Your task to perform on an android device: Do I have any events this weekend? Image 0: 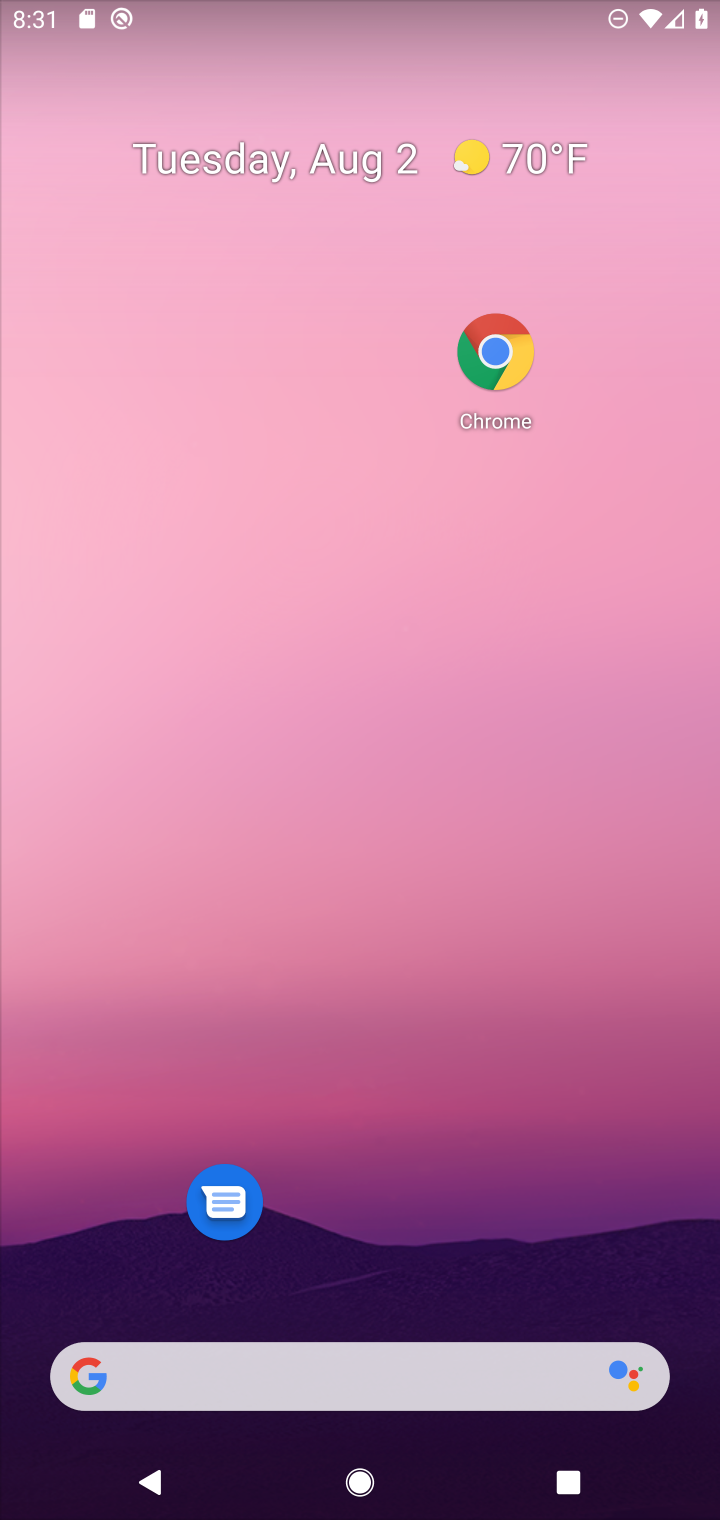
Step 0: drag from (387, 1091) to (342, 75)
Your task to perform on an android device: Do I have any events this weekend? Image 1: 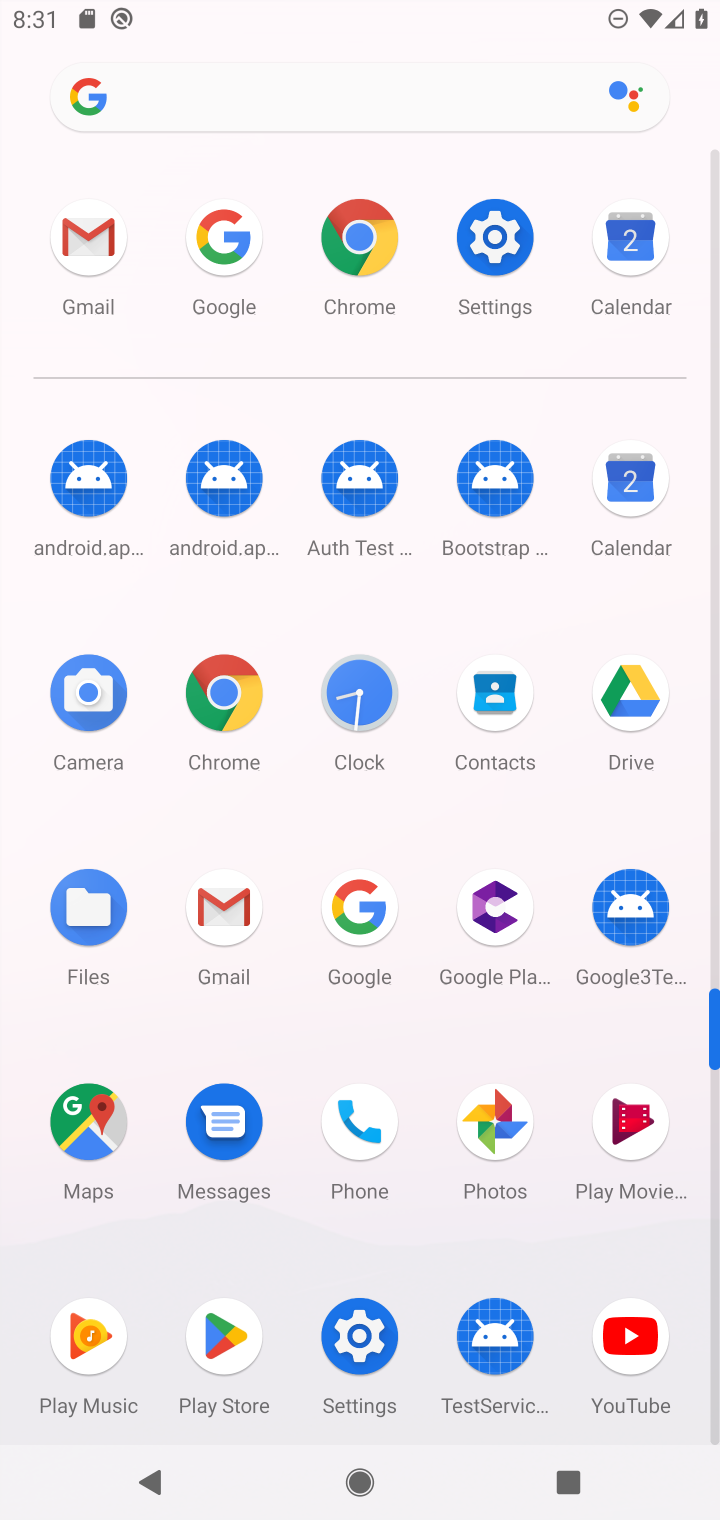
Step 1: click (617, 254)
Your task to perform on an android device: Do I have any events this weekend? Image 2: 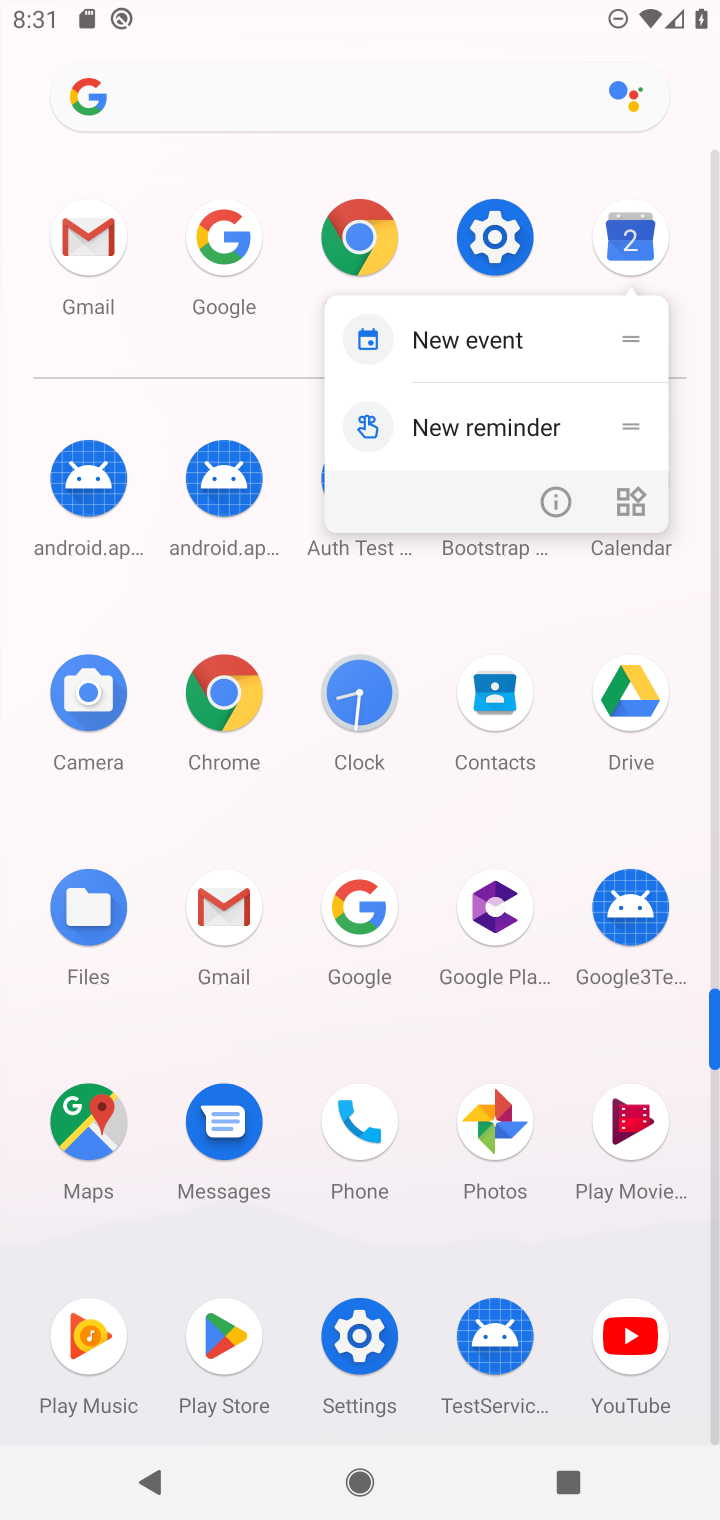
Step 2: click (631, 227)
Your task to perform on an android device: Do I have any events this weekend? Image 3: 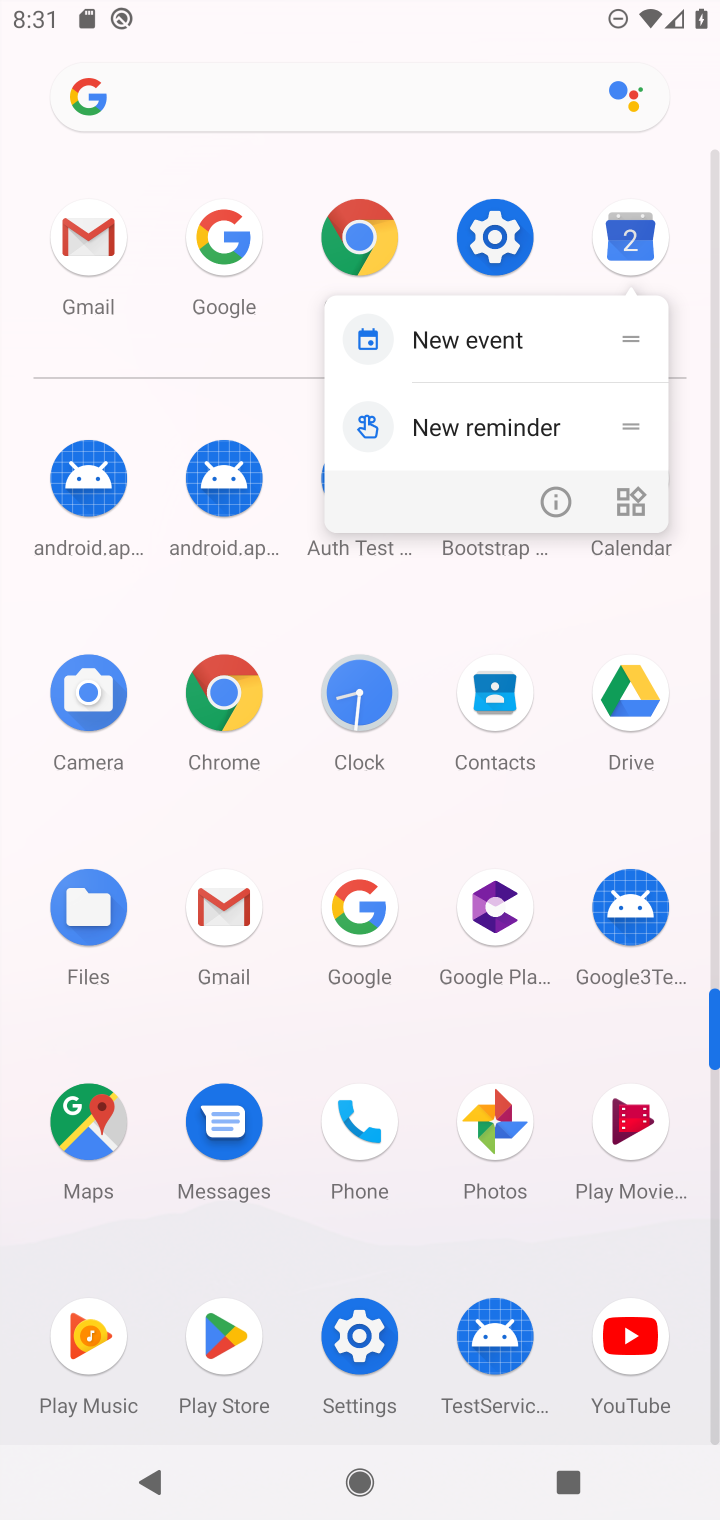
Step 3: click (616, 249)
Your task to perform on an android device: Do I have any events this weekend? Image 4: 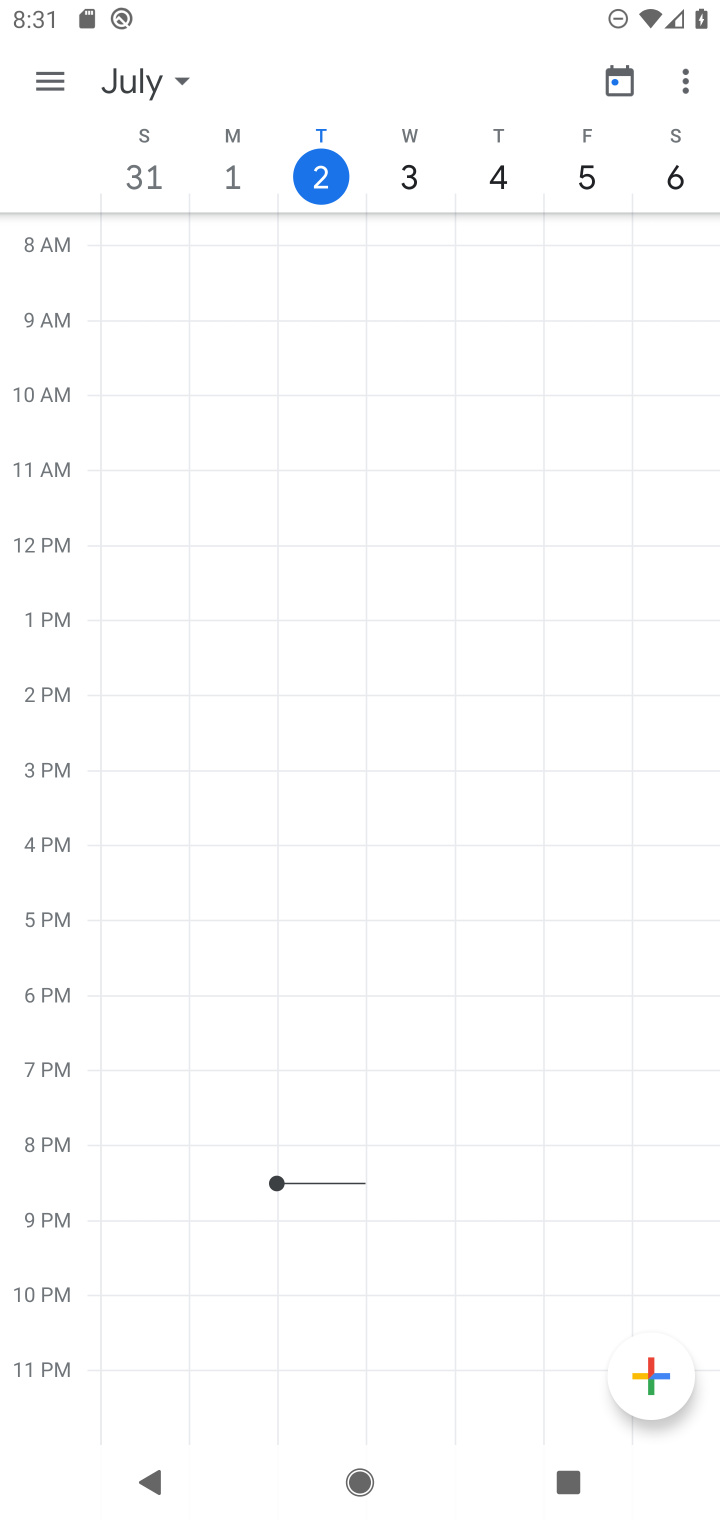
Step 4: click (42, 75)
Your task to perform on an android device: Do I have any events this weekend? Image 5: 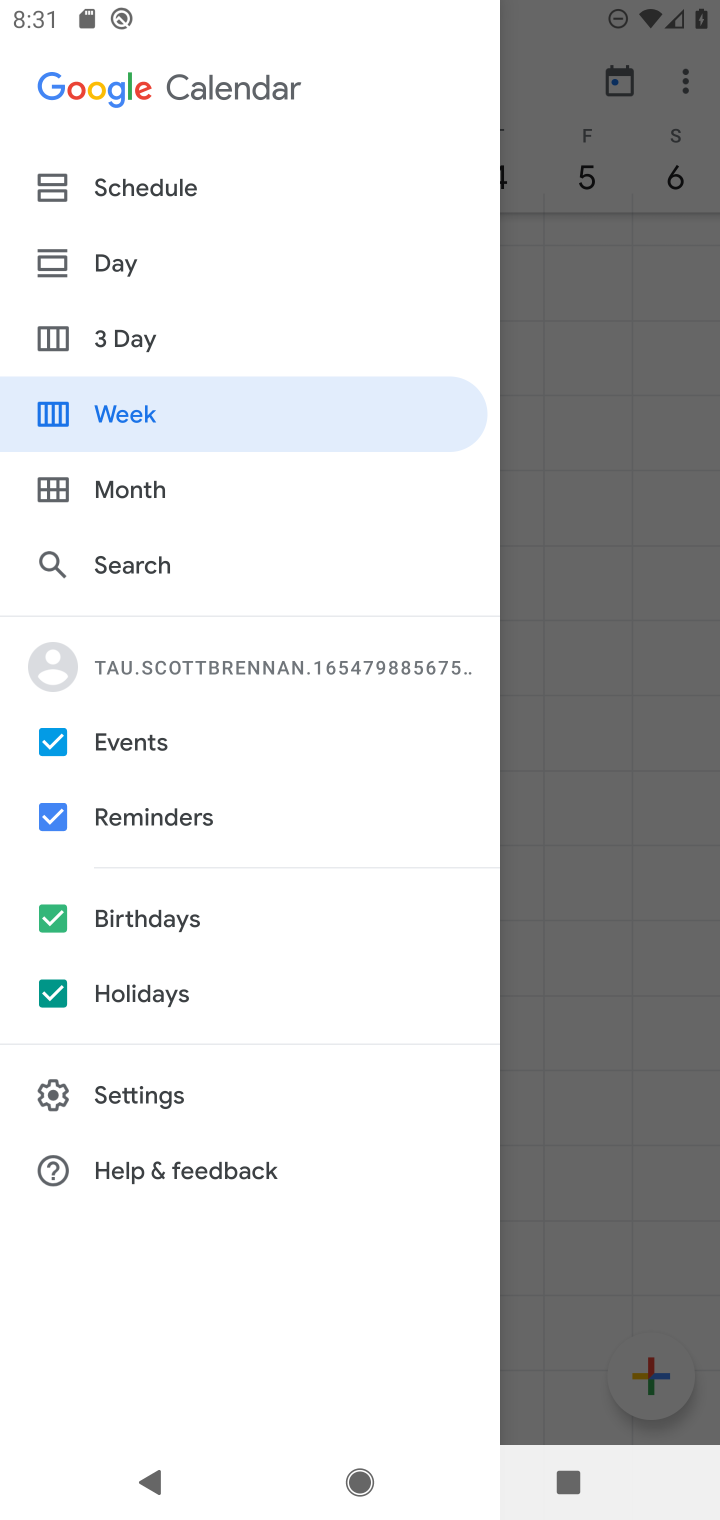
Step 5: click (44, 998)
Your task to perform on an android device: Do I have any events this weekend? Image 6: 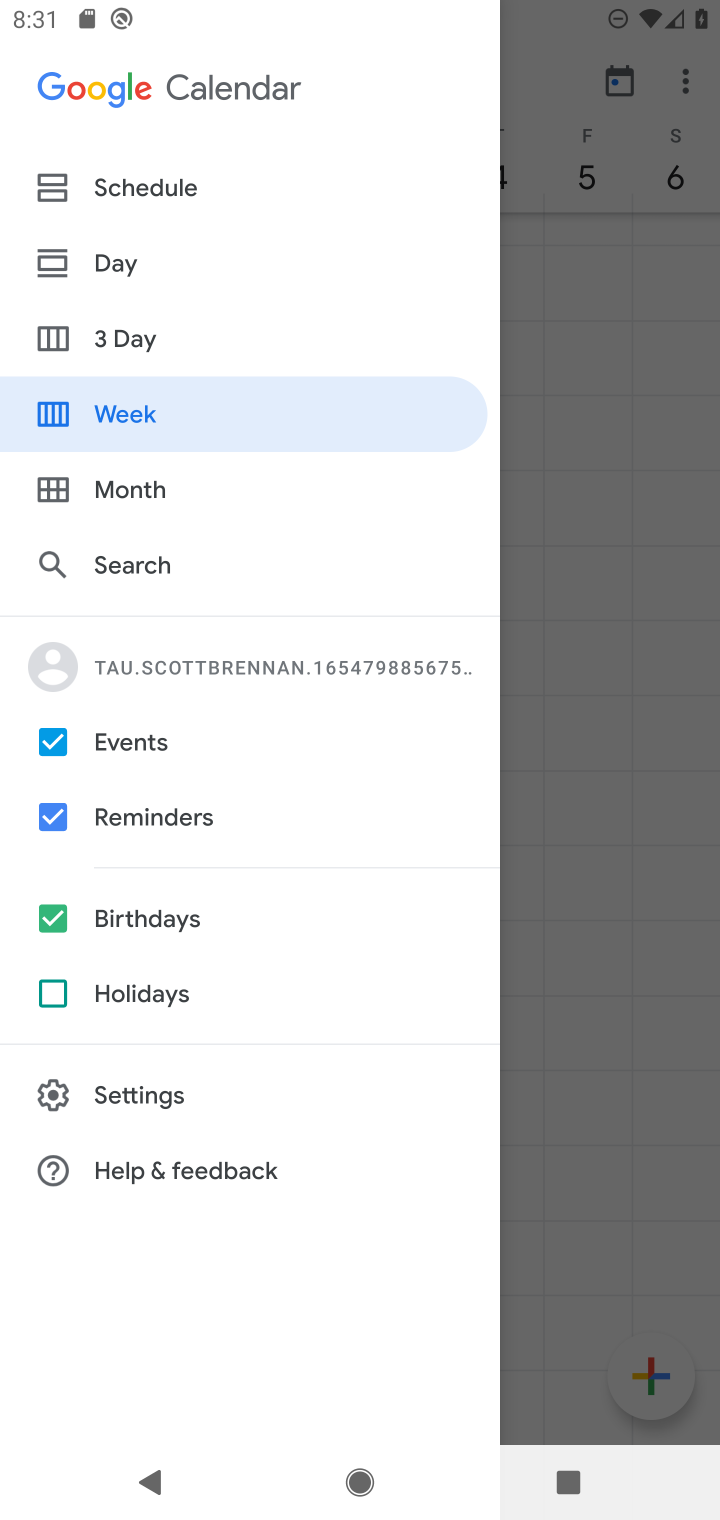
Step 6: click (47, 907)
Your task to perform on an android device: Do I have any events this weekend? Image 7: 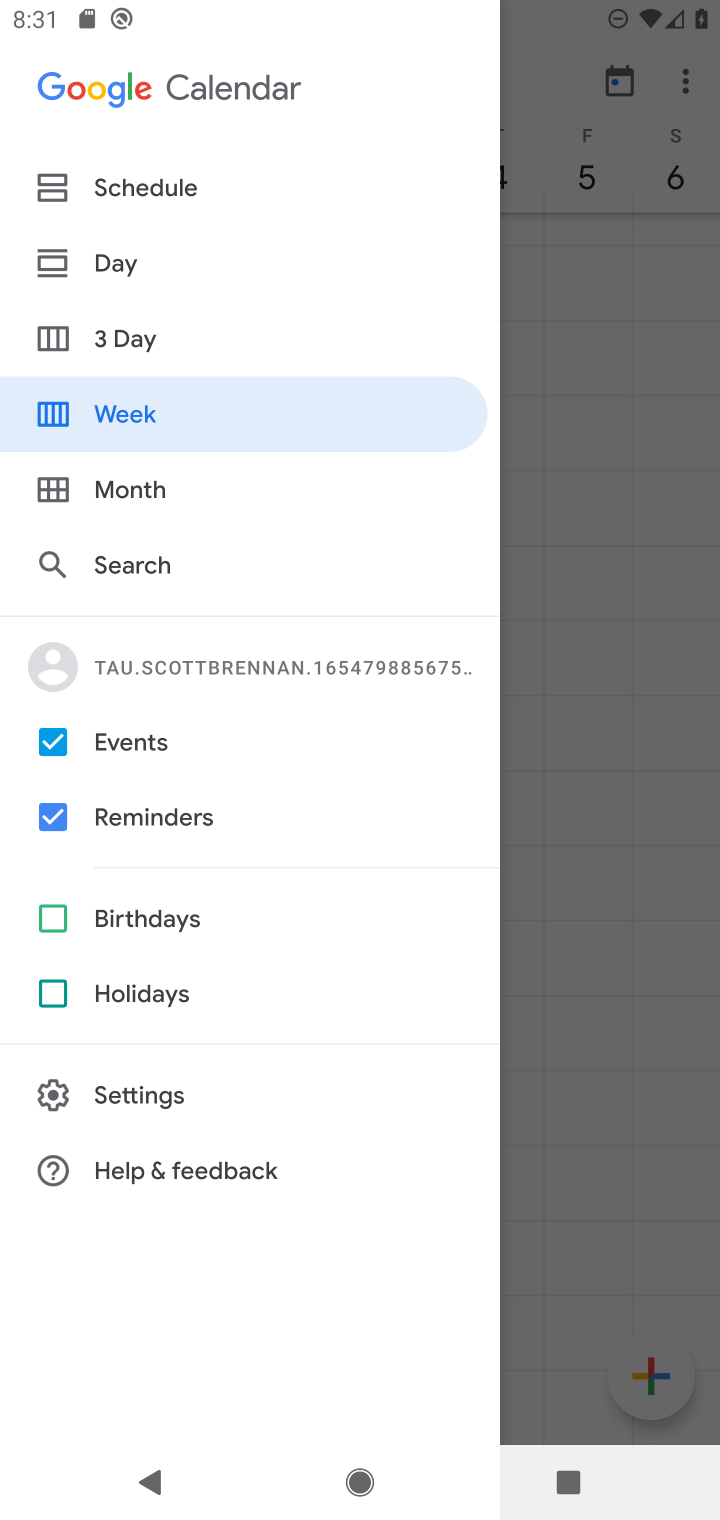
Step 7: click (44, 810)
Your task to perform on an android device: Do I have any events this weekend? Image 8: 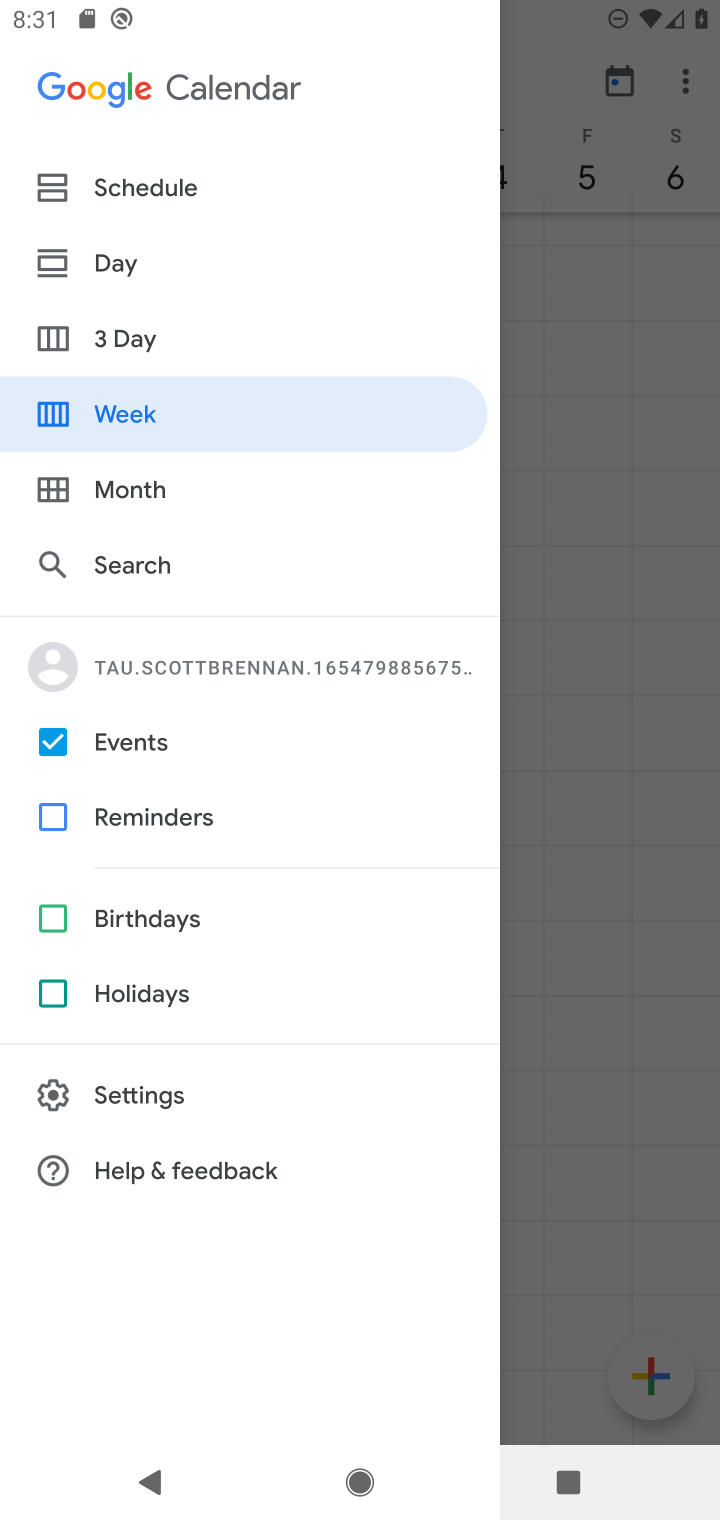
Step 8: click (67, 339)
Your task to perform on an android device: Do I have any events this weekend? Image 9: 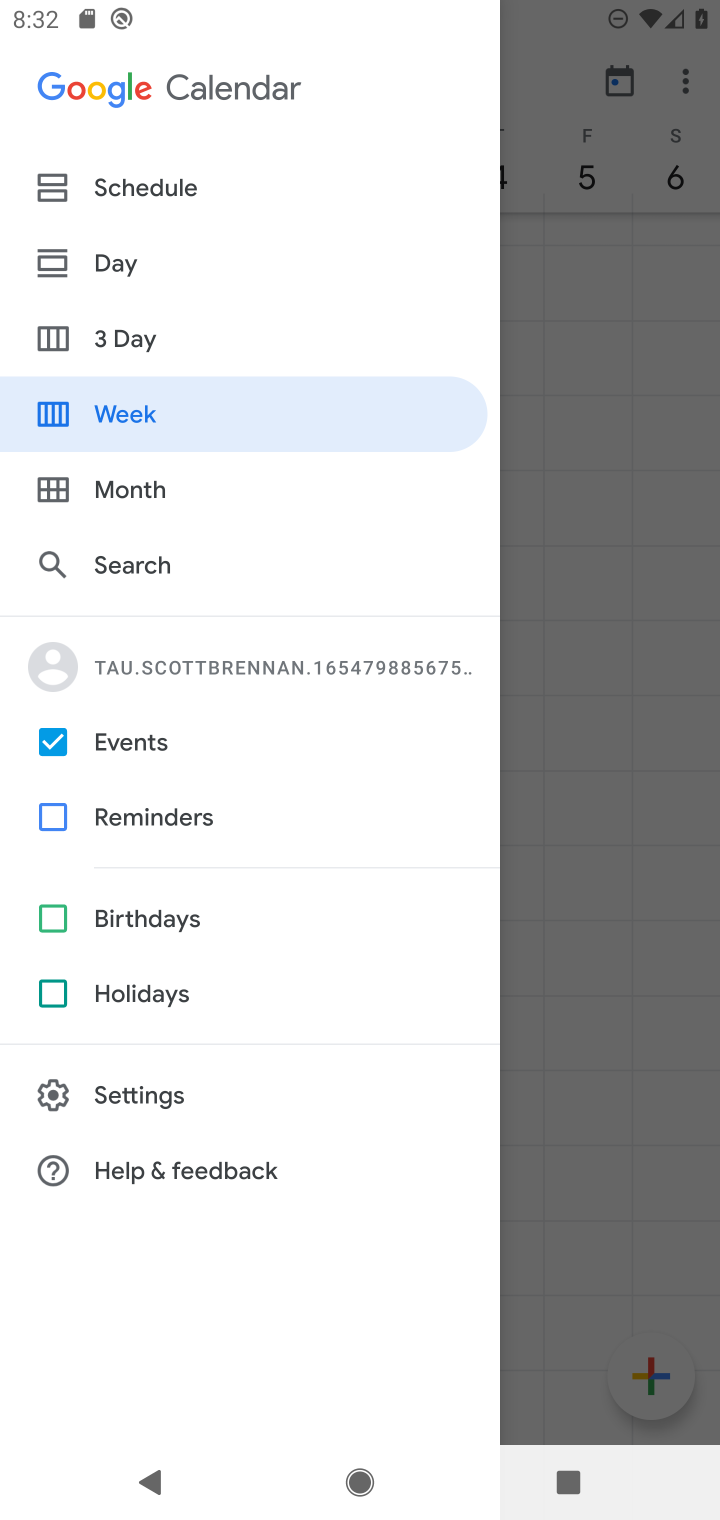
Step 9: click (104, 331)
Your task to perform on an android device: Do I have any events this weekend? Image 10: 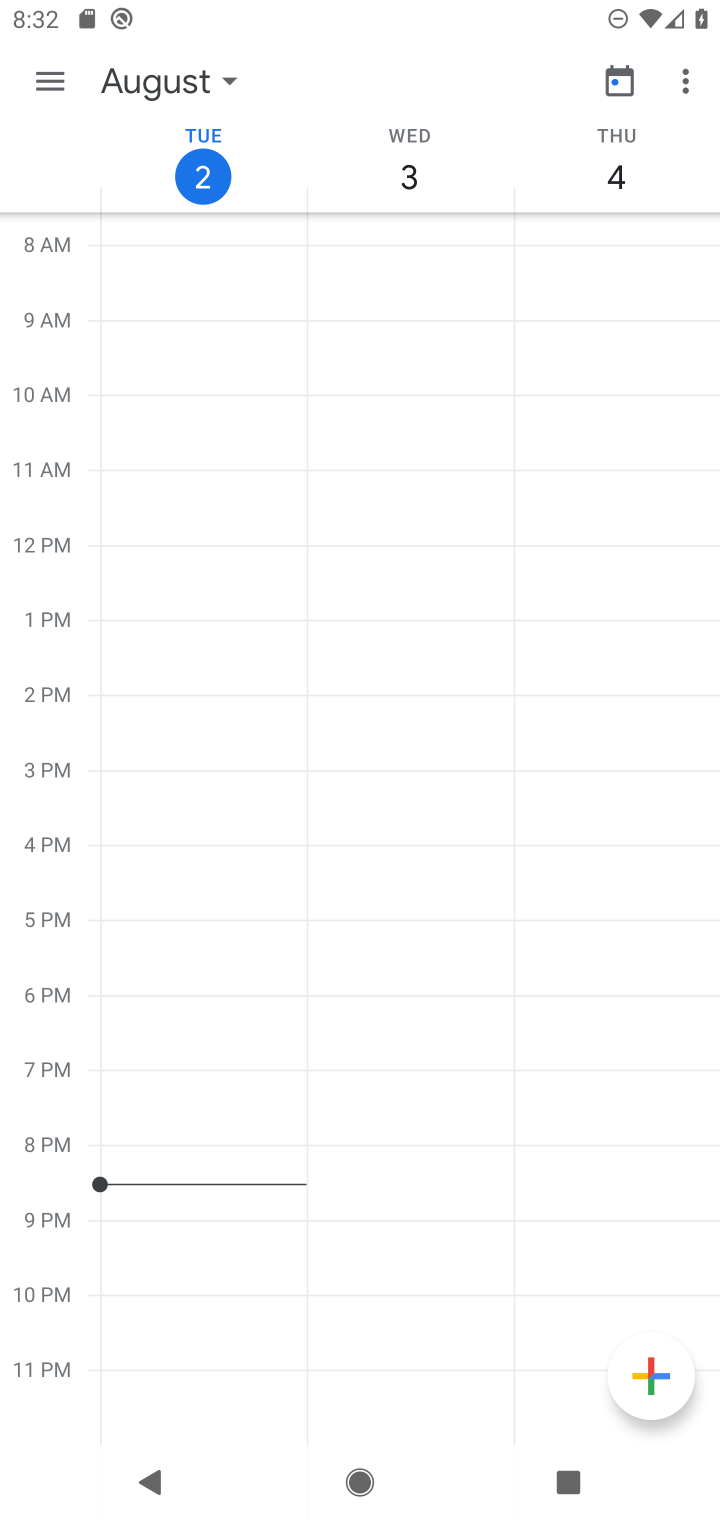
Step 10: click (225, 89)
Your task to perform on an android device: Do I have any events this weekend? Image 11: 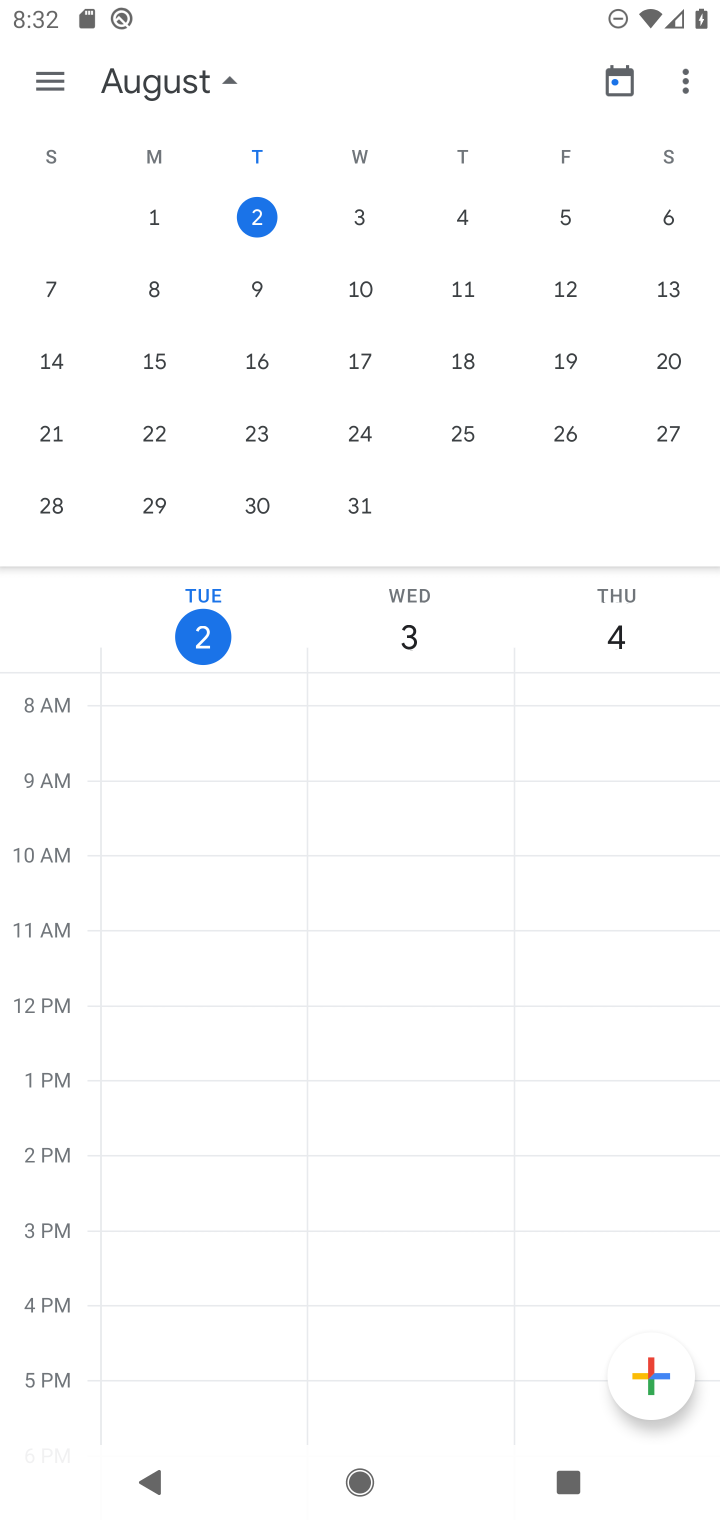
Step 11: click (575, 216)
Your task to perform on an android device: Do I have any events this weekend? Image 12: 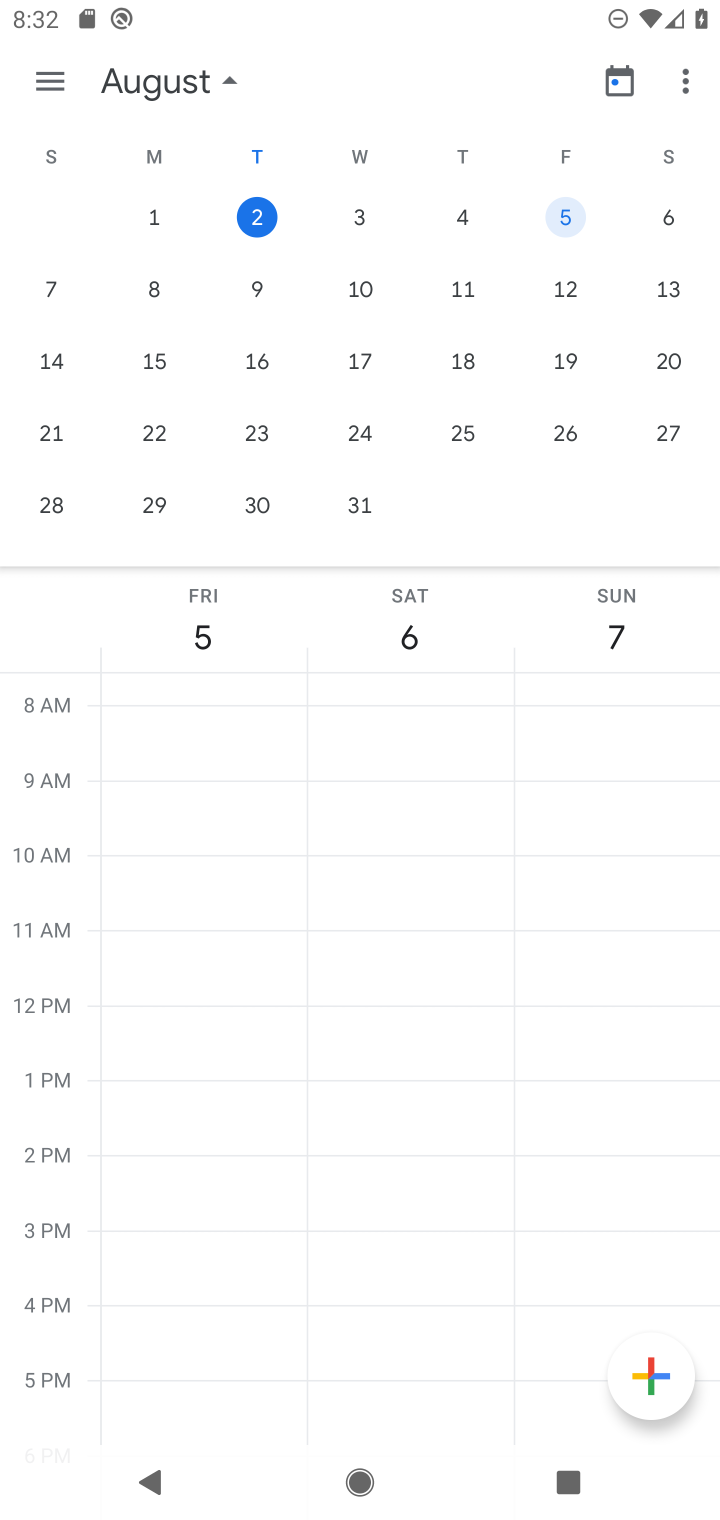
Step 12: task complete